Your task to perform on an android device: Do I have any events today? Image 0: 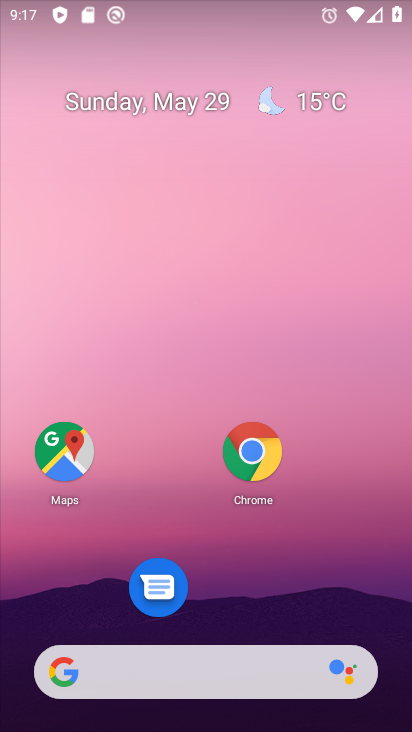
Step 0: click (226, 102)
Your task to perform on an android device: Do I have any events today? Image 1: 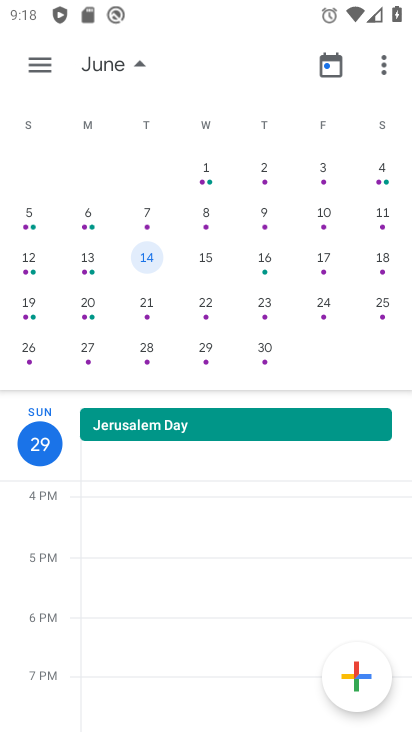
Step 1: click (226, 102)
Your task to perform on an android device: Do I have any events today? Image 2: 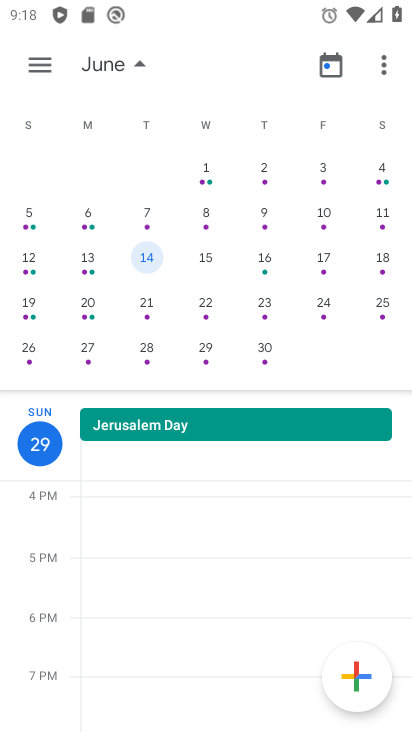
Step 2: task complete